Your task to perform on an android device: toggle sleep mode Image 0: 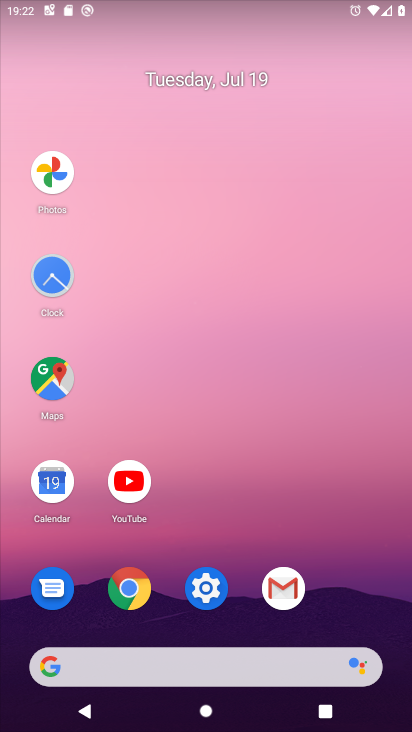
Step 0: click (209, 583)
Your task to perform on an android device: toggle sleep mode Image 1: 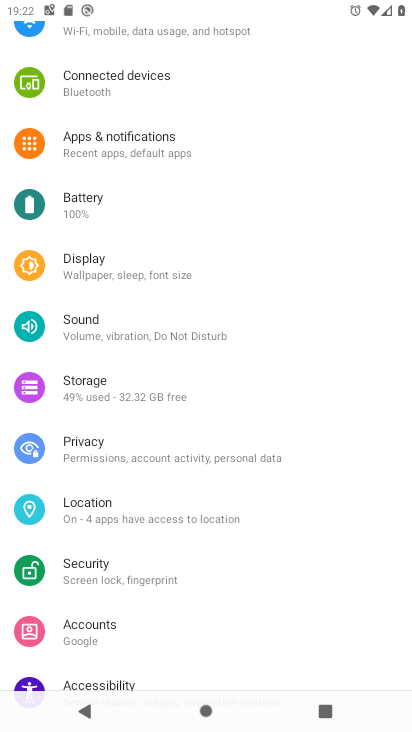
Step 1: click (80, 250)
Your task to perform on an android device: toggle sleep mode Image 2: 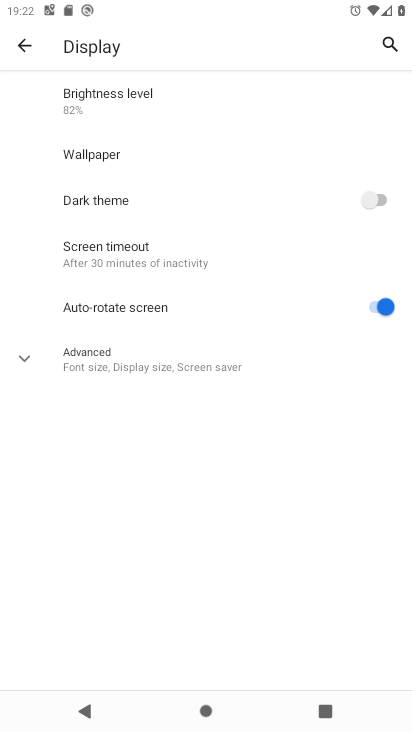
Step 2: task complete